Your task to perform on an android device: open app "Microsoft Authenticator" (install if not already installed) and go to login screen Image 0: 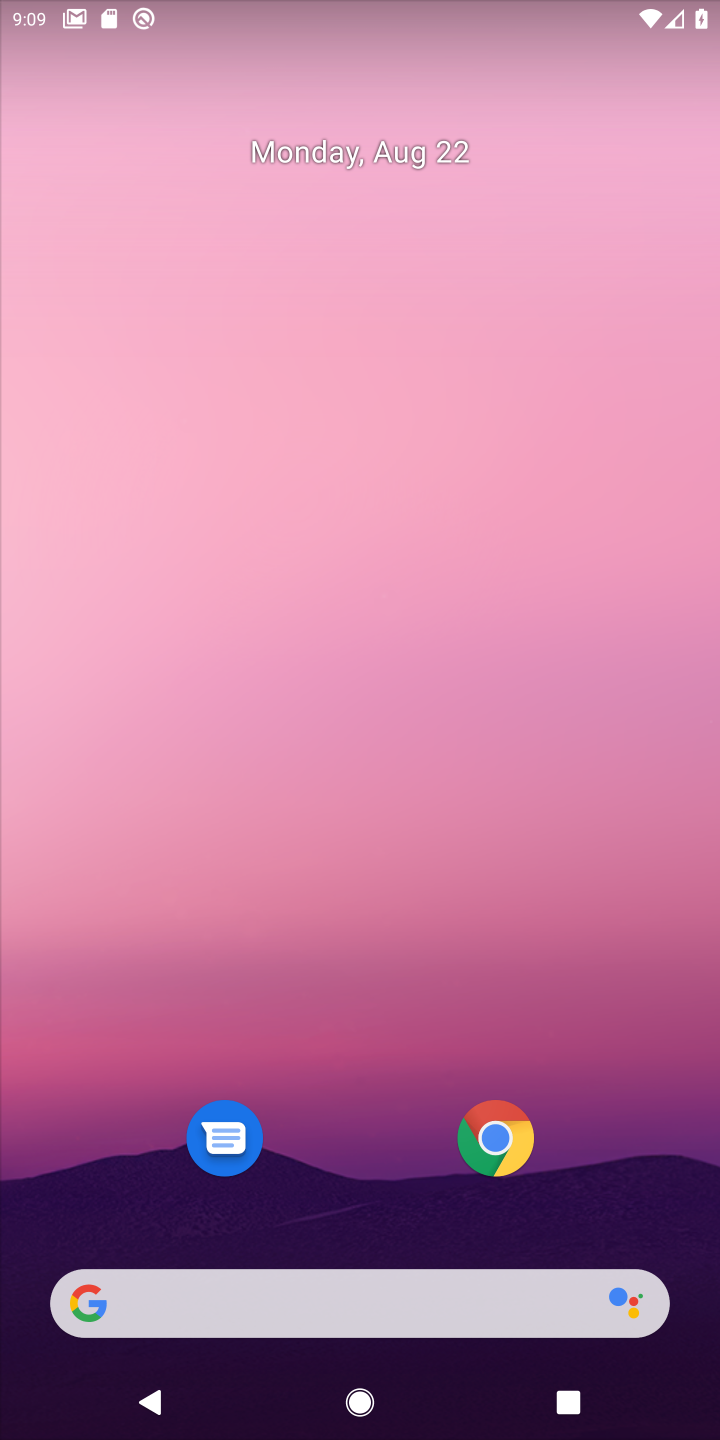
Step 0: drag from (356, 1220) to (562, 61)
Your task to perform on an android device: open app "Microsoft Authenticator" (install if not already installed) and go to login screen Image 1: 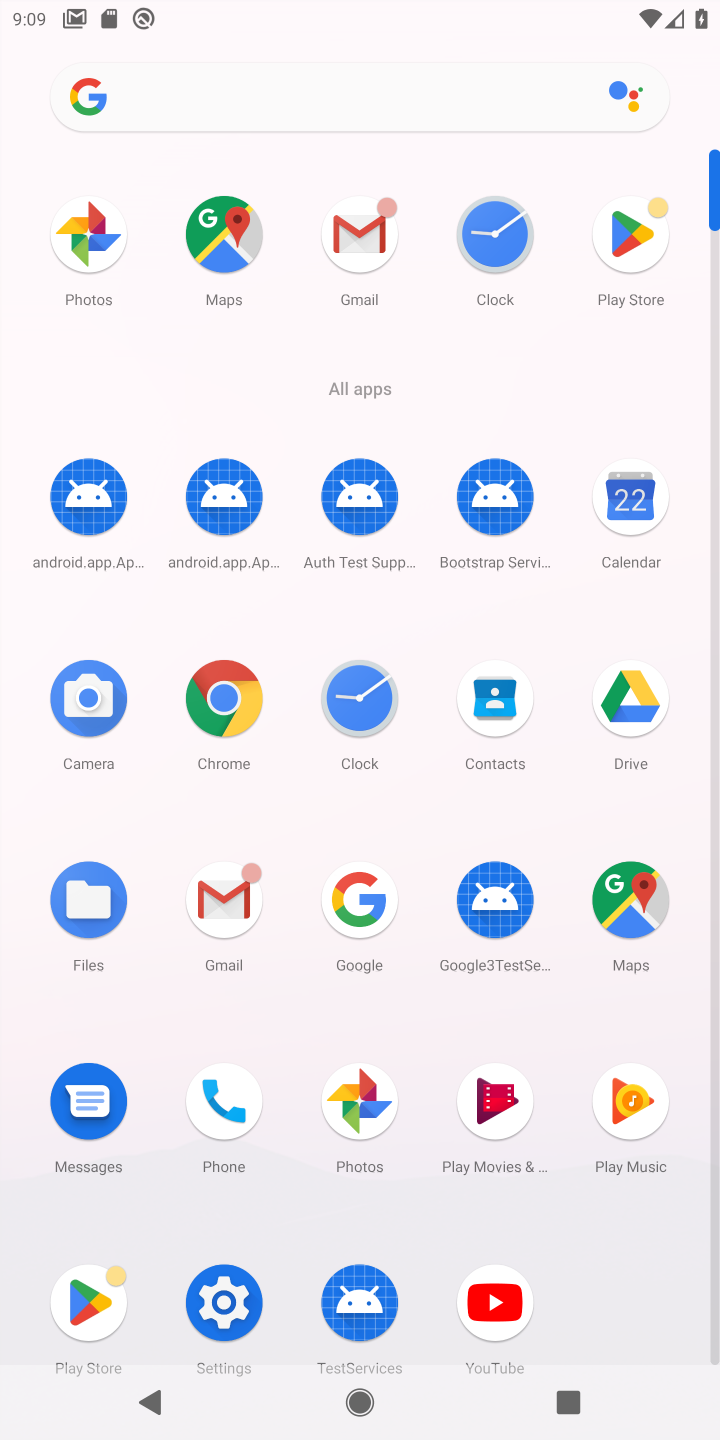
Step 1: click (81, 1311)
Your task to perform on an android device: open app "Microsoft Authenticator" (install if not already installed) and go to login screen Image 2: 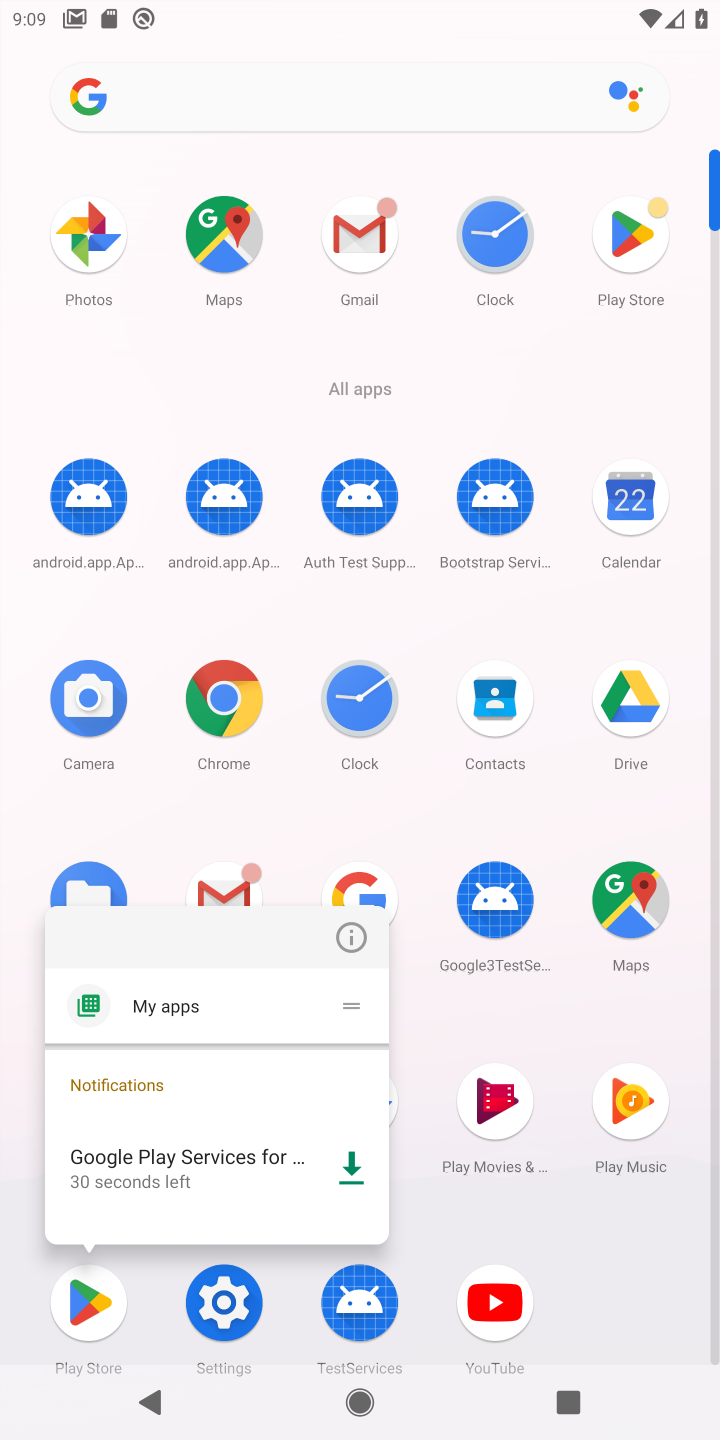
Step 2: click (90, 1322)
Your task to perform on an android device: open app "Microsoft Authenticator" (install if not already installed) and go to login screen Image 3: 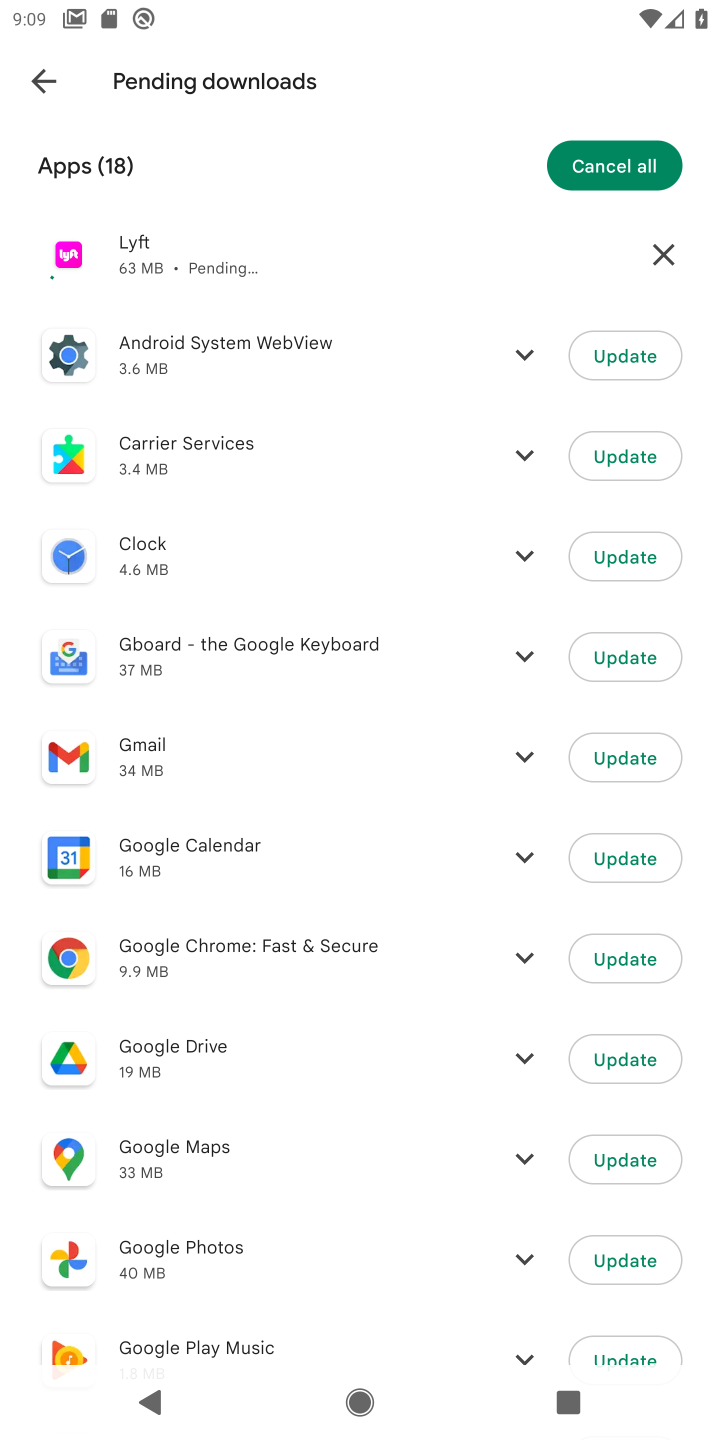
Step 3: click (39, 98)
Your task to perform on an android device: open app "Microsoft Authenticator" (install if not already installed) and go to login screen Image 4: 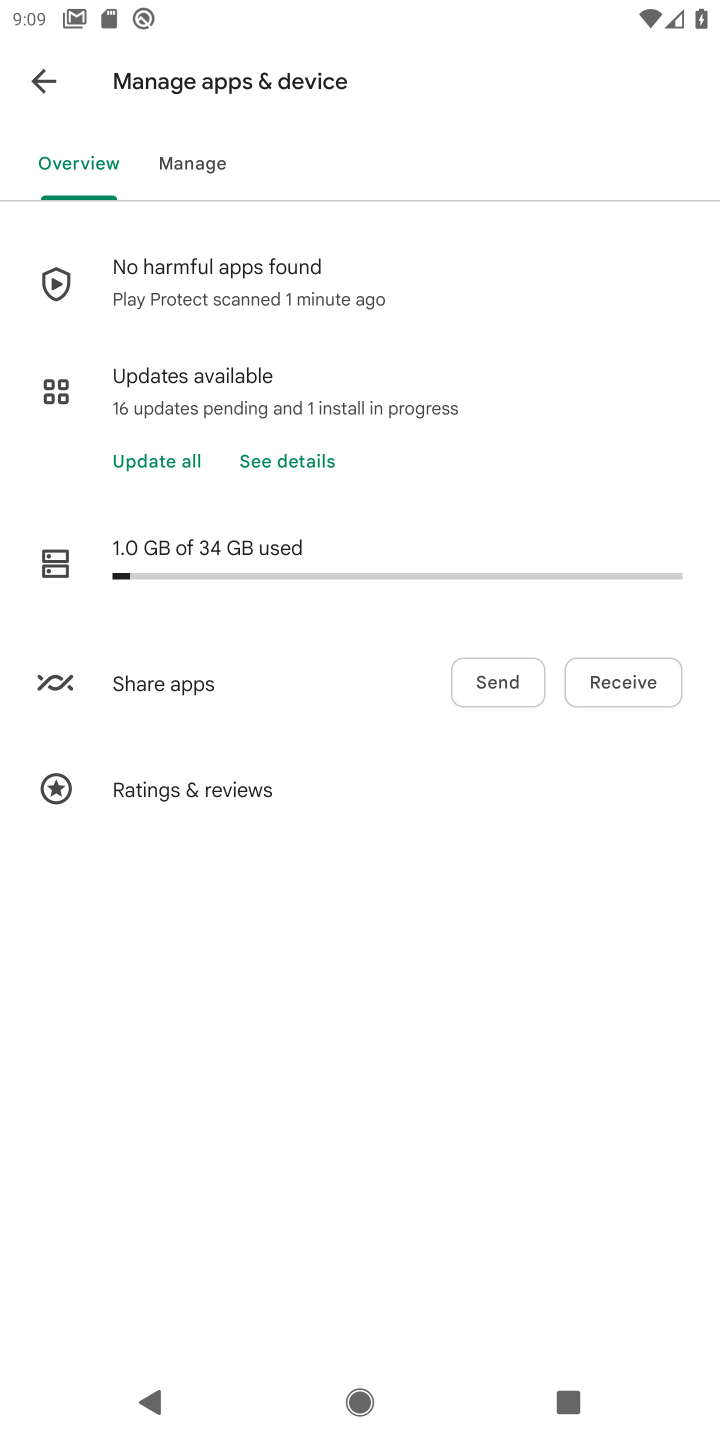
Step 4: click (18, 64)
Your task to perform on an android device: open app "Microsoft Authenticator" (install if not already installed) and go to login screen Image 5: 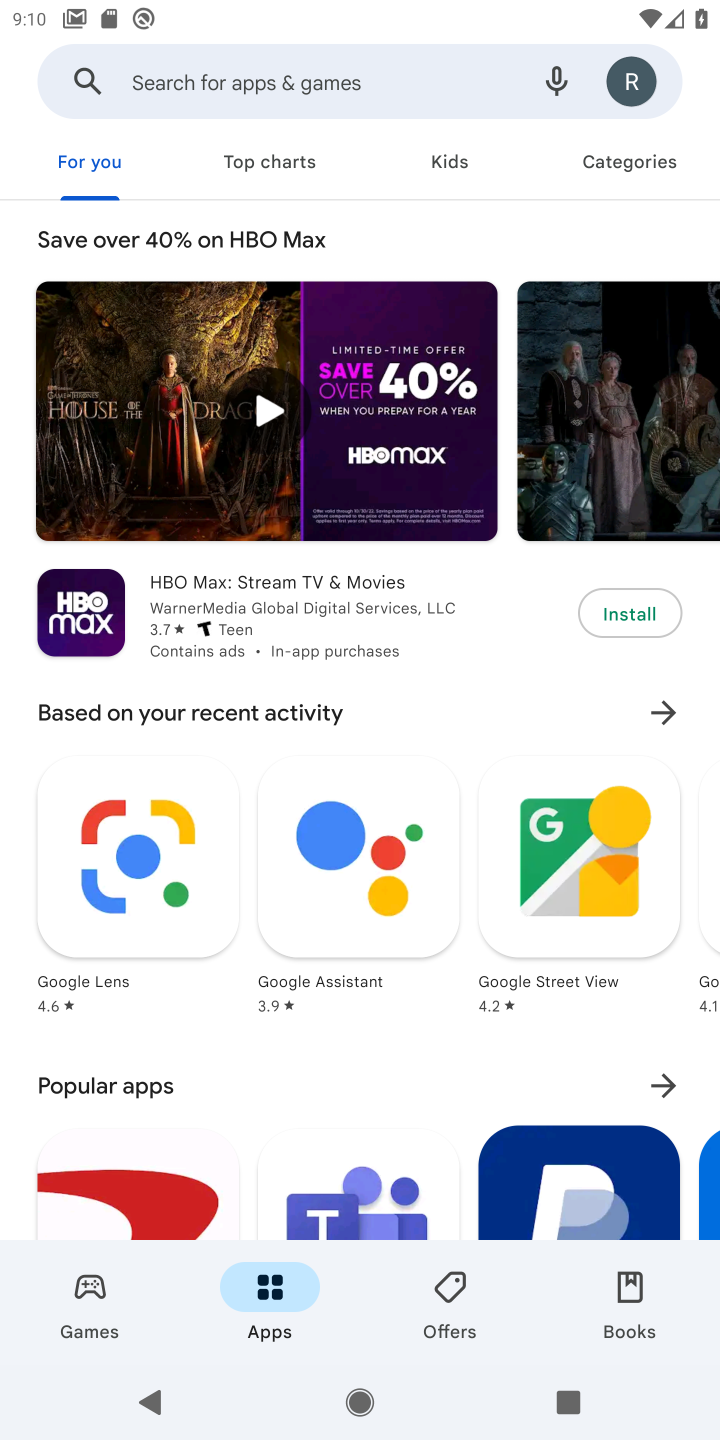
Step 5: click (234, 97)
Your task to perform on an android device: open app "Microsoft Authenticator" (install if not already installed) and go to login screen Image 6: 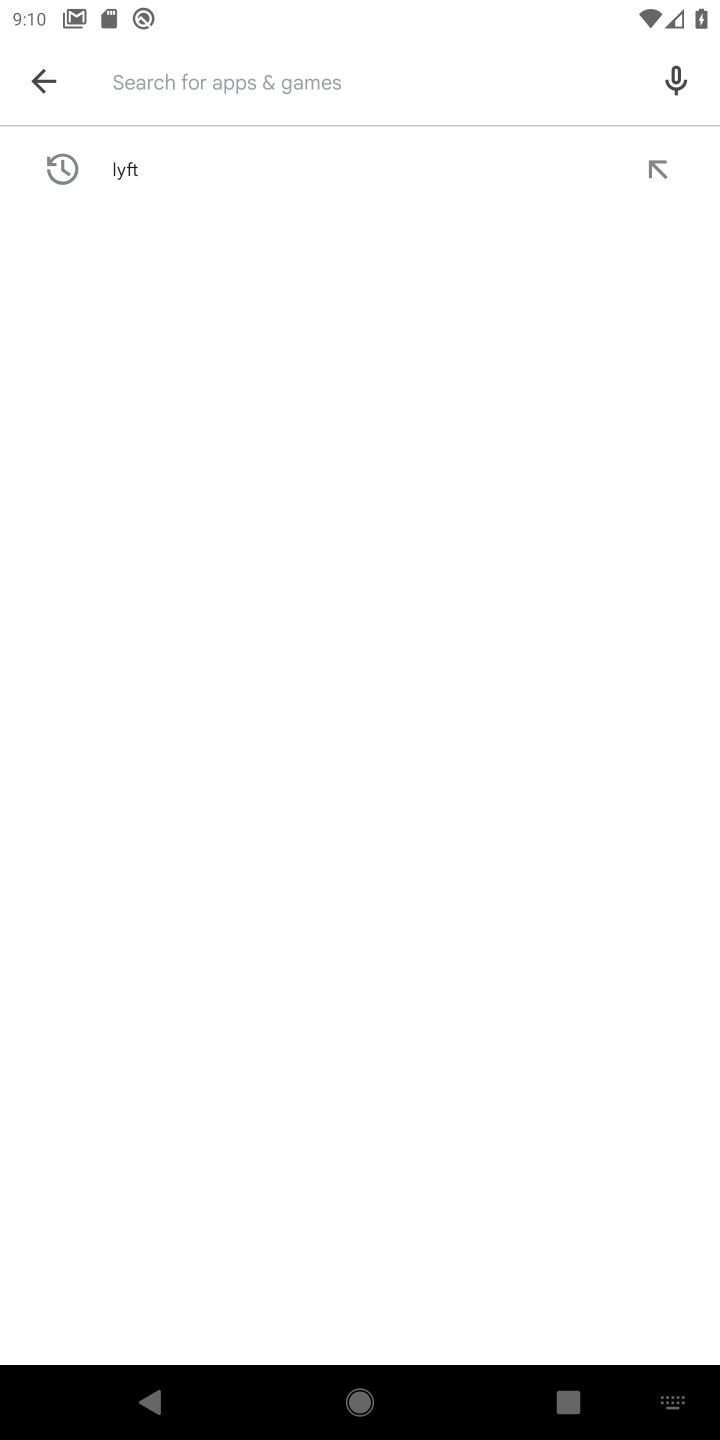
Step 6: type "Microsoft Authenticator"
Your task to perform on an android device: open app "Microsoft Authenticator" (install if not already installed) and go to login screen Image 7: 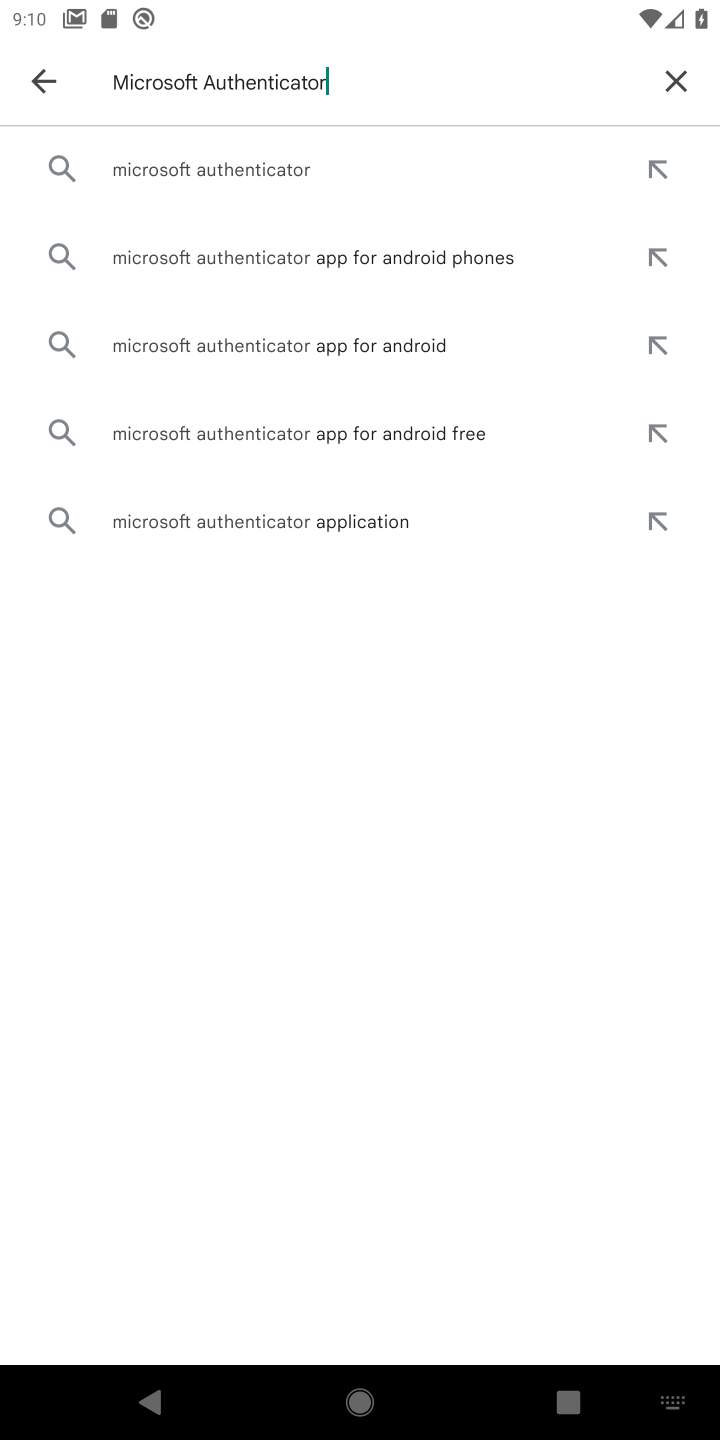
Step 7: click (108, 149)
Your task to perform on an android device: open app "Microsoft Authenticator" (install if not already installed) and go to login screen Image 8: 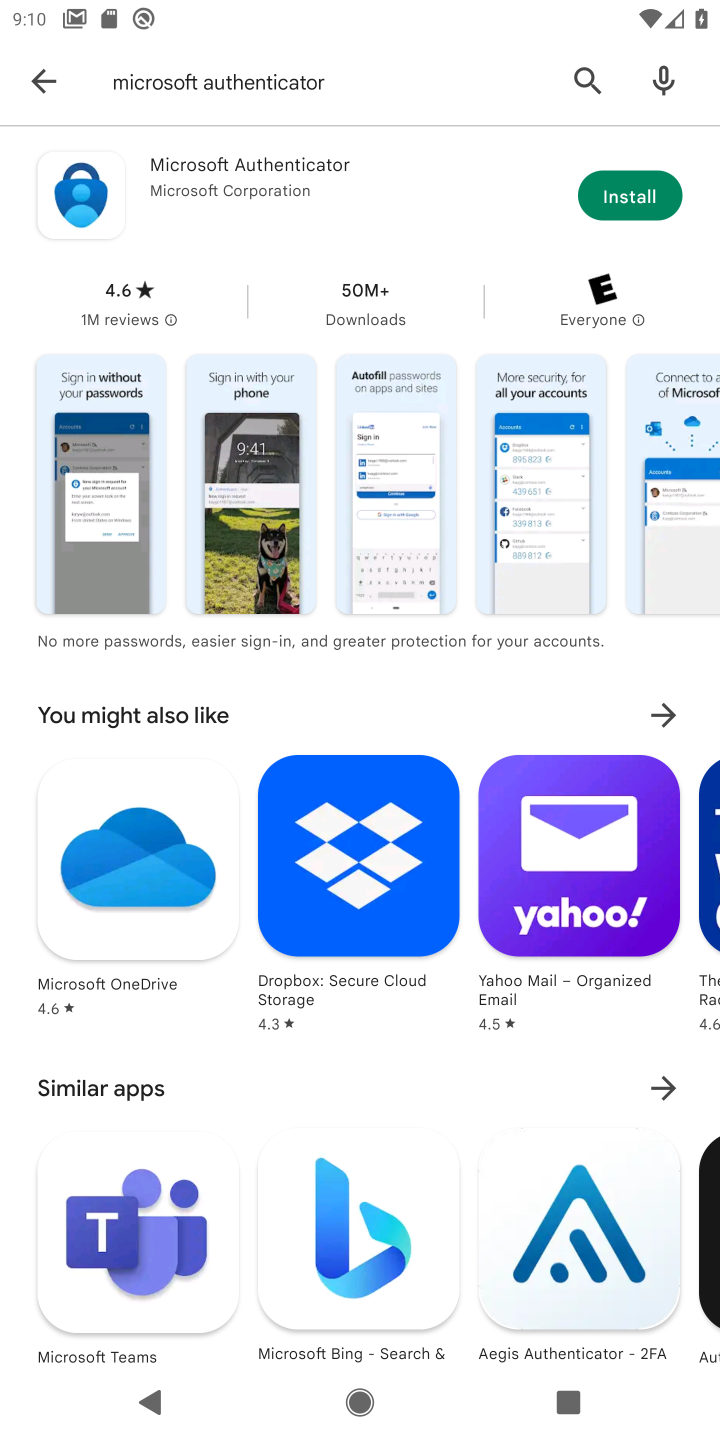
Step 8: click (619, 207)
Your task to perform on an android device: open app "Microsoft Authenticator" (install if not already installed) and go to login screen Image 9: 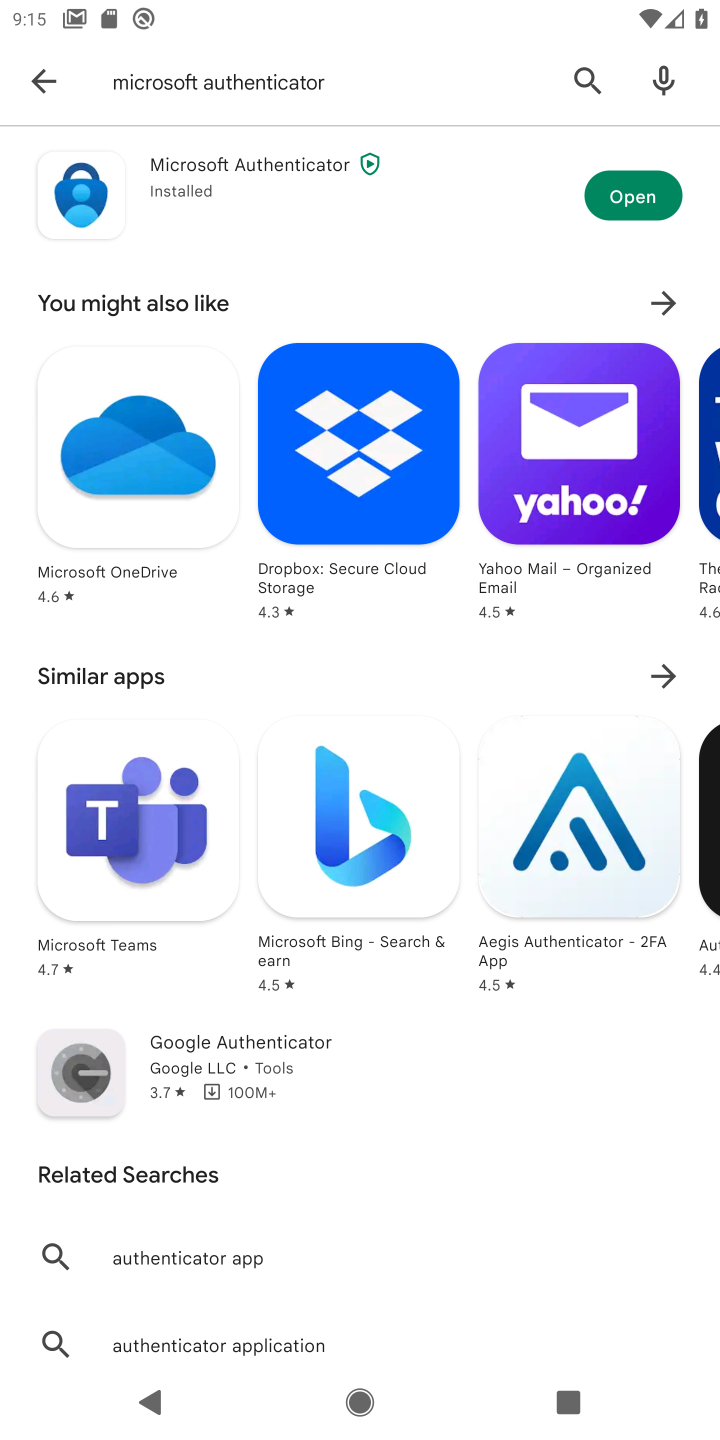
Step 9: click (652, 183)
Your task to perform on an android device: open app "Microsoft Authenticator" (install if not already installed) and go to login screen Image 10: 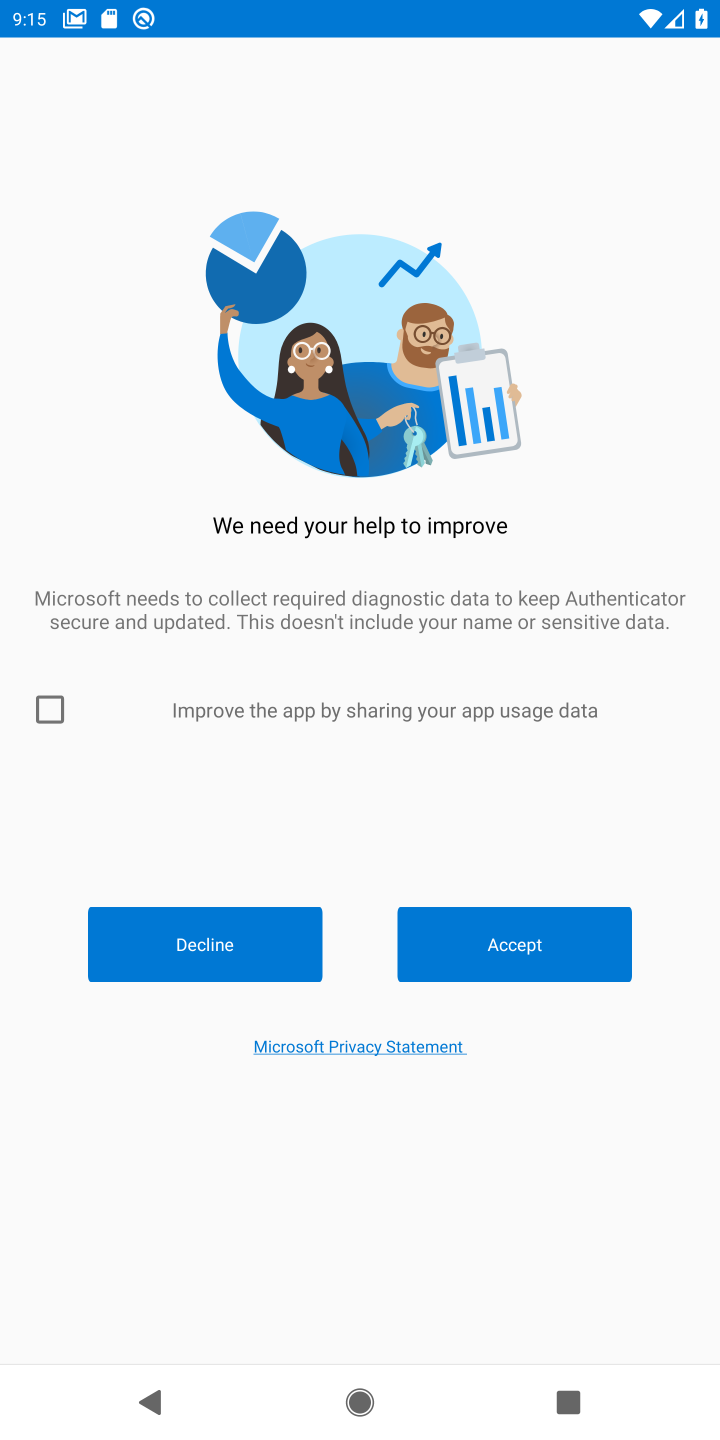
Step 10: click (32, 686)
Your task to perform on an android device: open app "Microsoft Authenticator" (install if not already installed) and go to login screen Image 11: 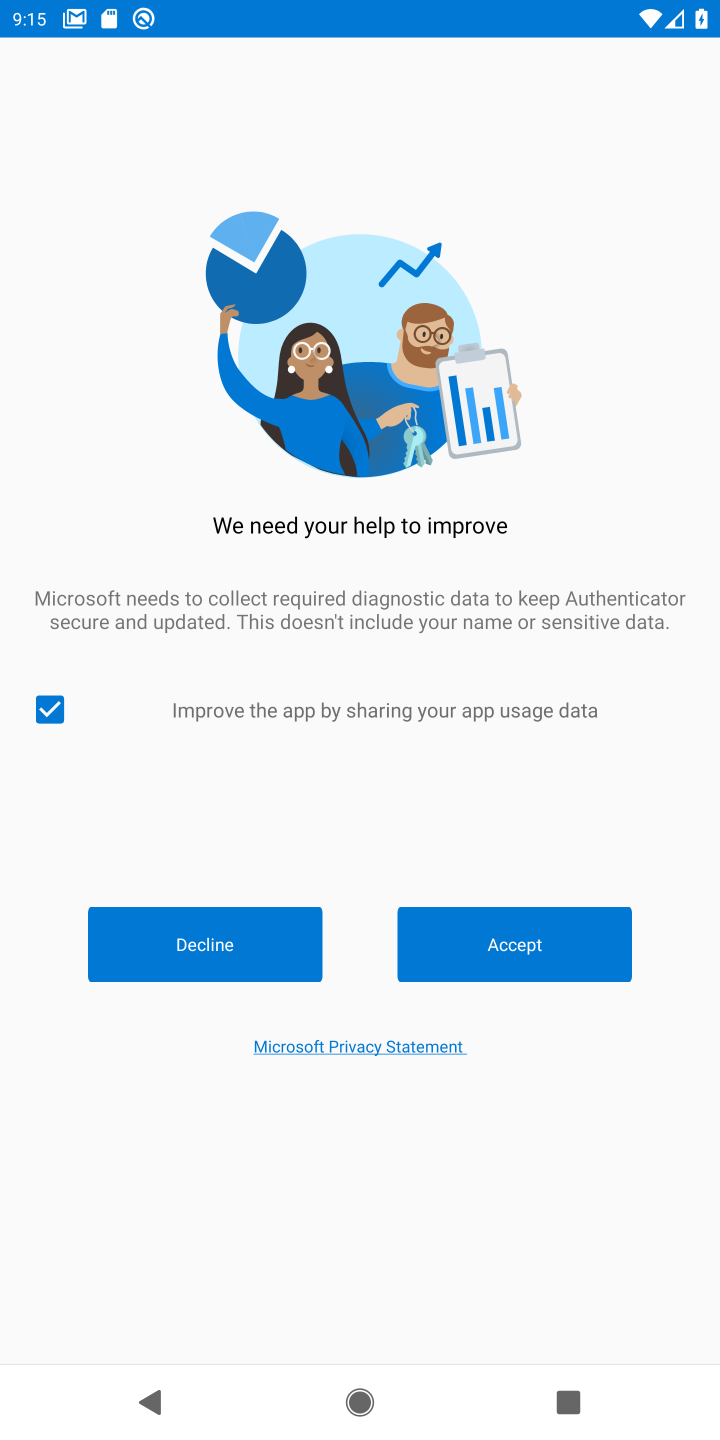
Step 11: click (214, 944)
Your task to perform on an android device: open app "Microsoft Authenticator" (install if not already installed) and go to login screen Image 12: 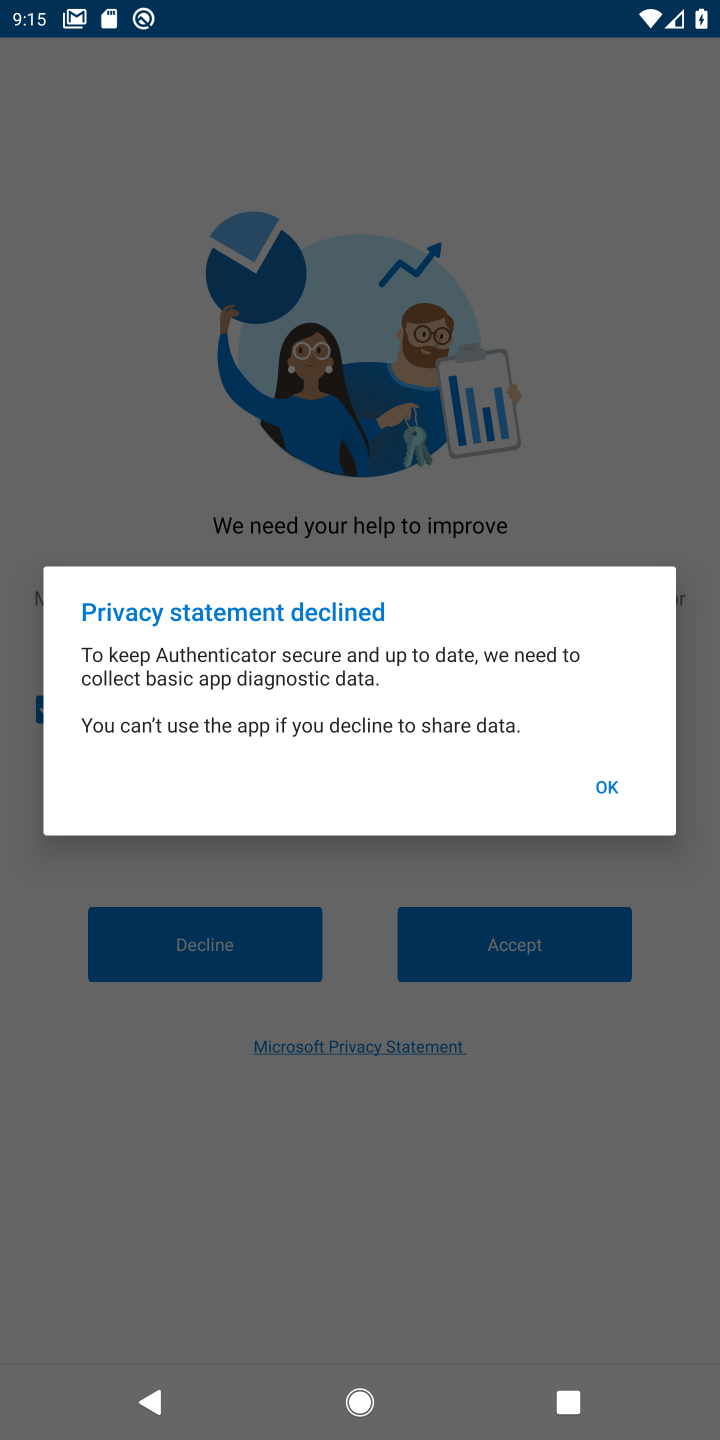
Step 12: click (627, 768)
Your task to perform on an android device: open app "Microsoft Authenticator" (install if not already installed) and go to login screen Image 13: 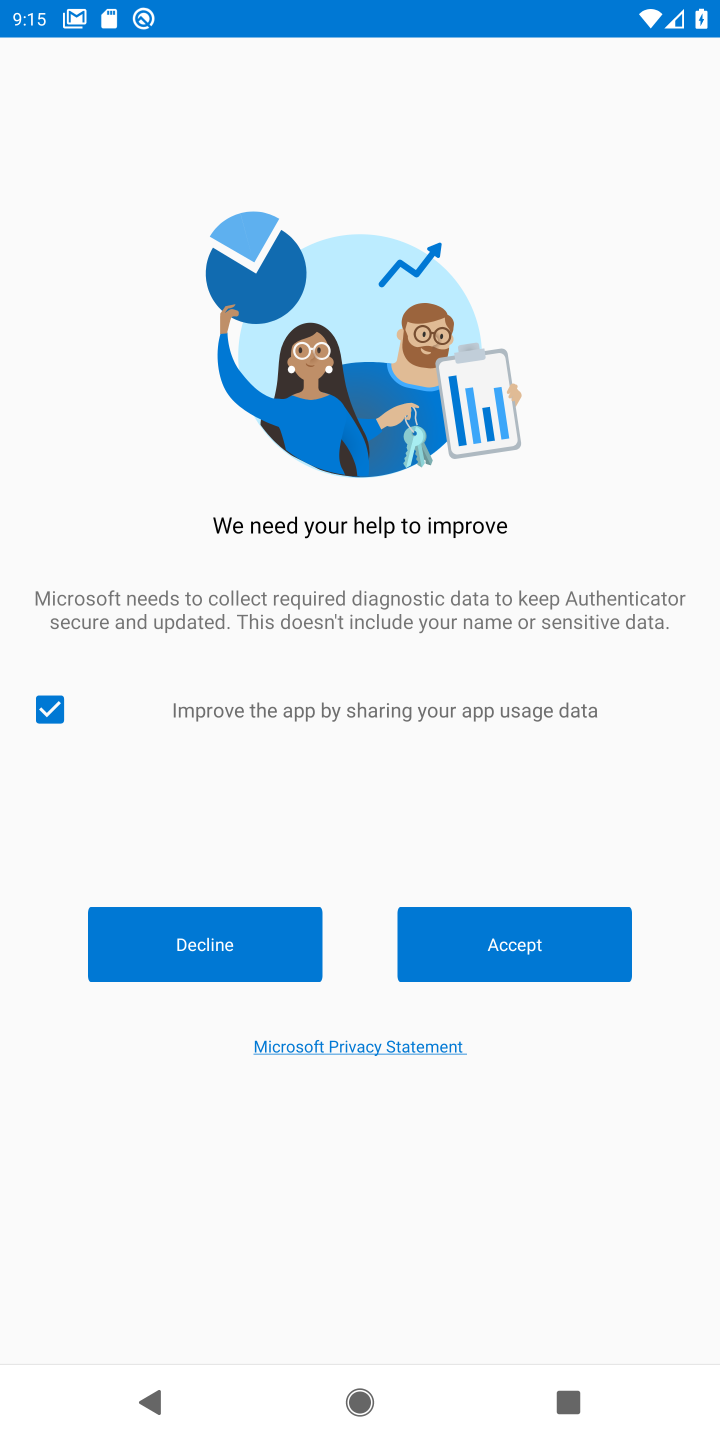
Step 13: task complete